Your task to perform on an android device: Go to accessibility settings Image 0: 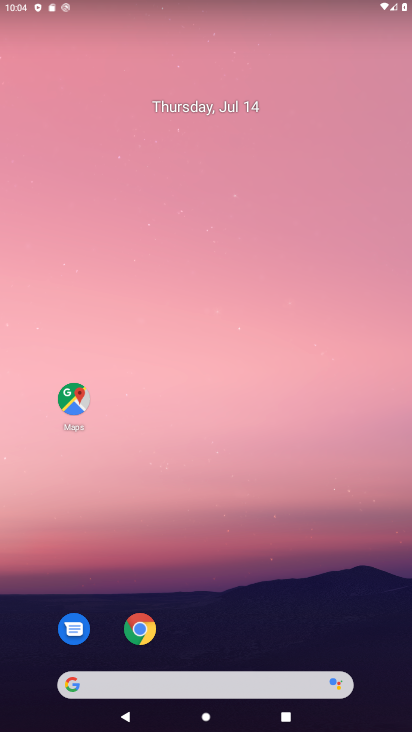
Step 0: drag from (203, 673) to (187, 345)
Your task to perform on an android device: Go to accessibility settings Image 1: 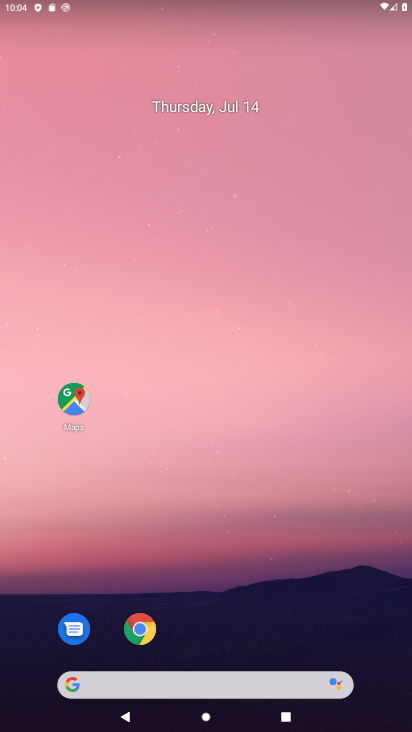
Step 1: drag from (229, 672) to (218, 192)
Your task to perform on an android device: Go to accessibility settings Image 2: 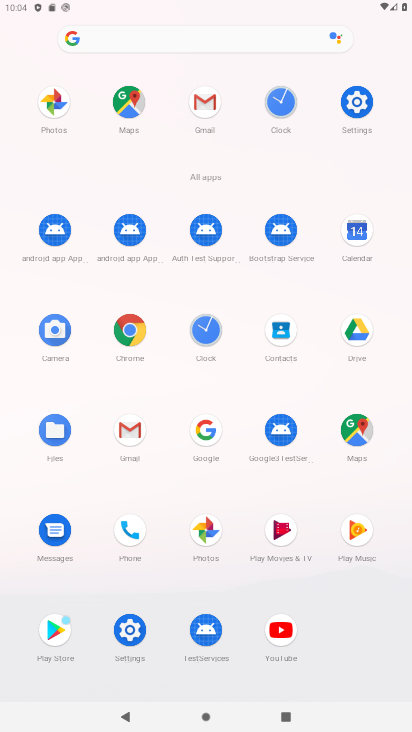
Step 2: click (122, 630)
Your task to perform on an android device: Go to accessibility settings Image 3: 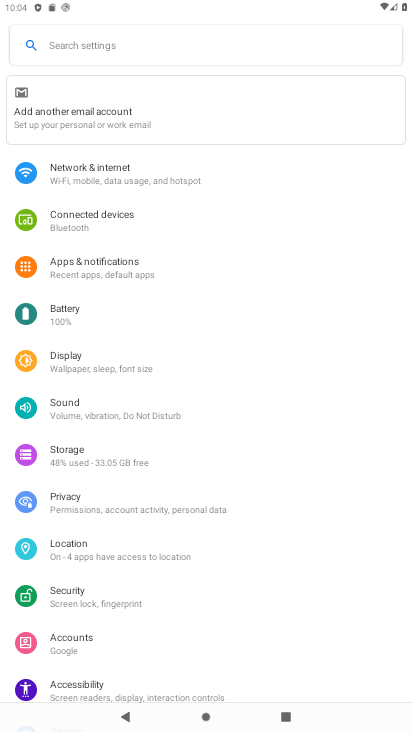
Step 3: click (88, 687)
Your task to perform on an android device: Go to accessibility settings Image 4: 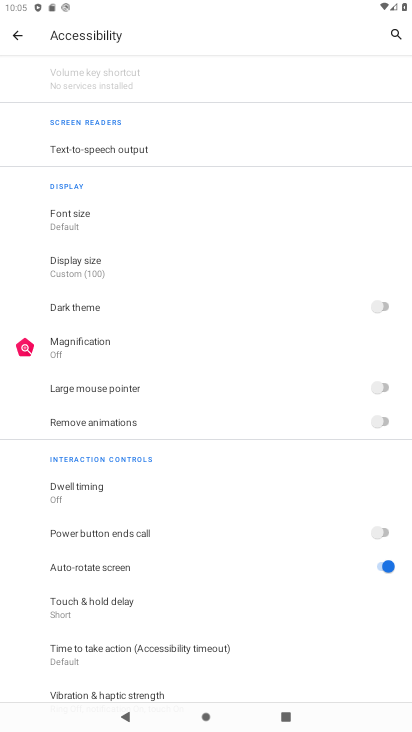
Step 4: task complete